Your task to perform on an android device: Open Reddit.com Image 0: 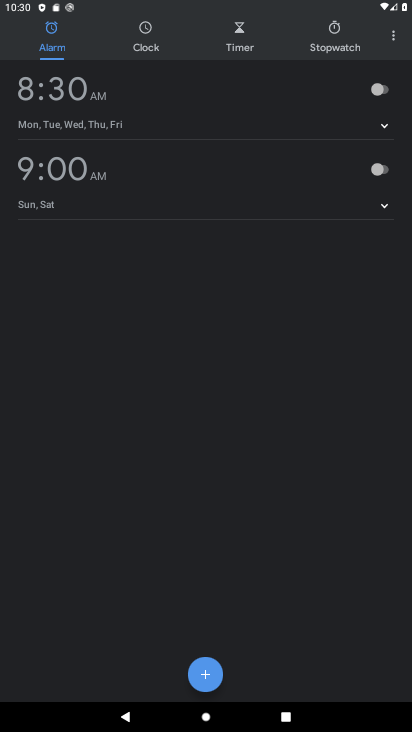
Step 0: press home button
Your task to perform on an android device: Open Reddit.com Image 1: 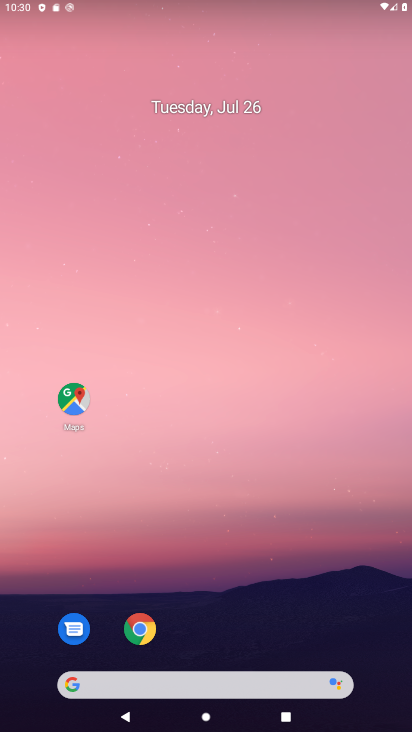
Step 1: drag from (365, 636) to (194, 36)
Your task to perform on an android device: Open Reddit.com Image 2: 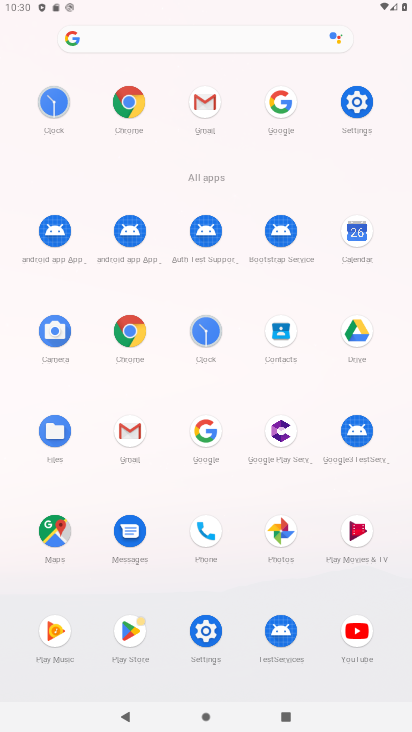
Step 2: click (197, 426)
Your task to perform on an android device: Open Reddit.com Image 3: 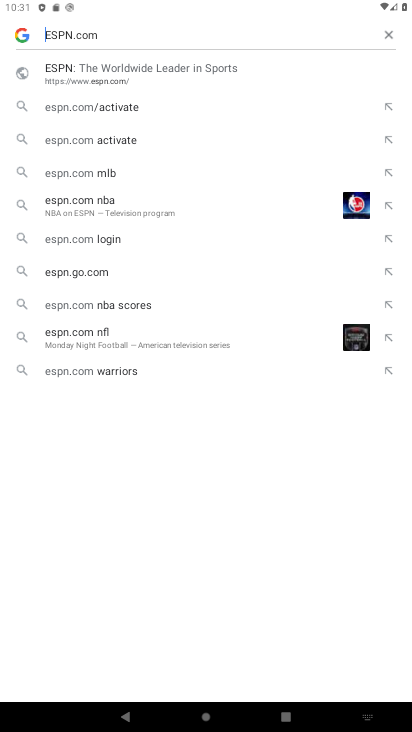
Step 3: click (384, 33)
Your task to perform on an android device: Open Reddit.com Image 4: 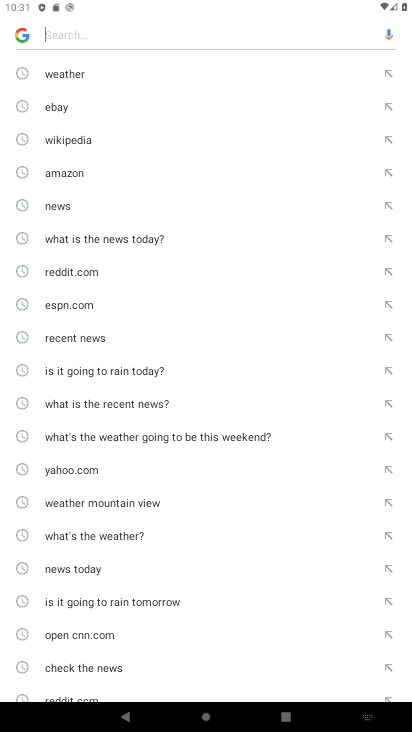
Step 4: type "Reddit.com"
Your task to perform on an android device: Open Reddit.com Image 5: 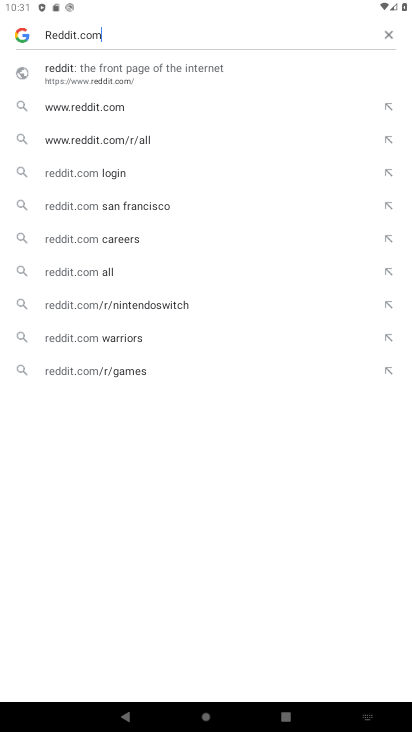
Step 5: click (126, 74)
Your task to perform on an android device: Open Reddit.com Image 6: 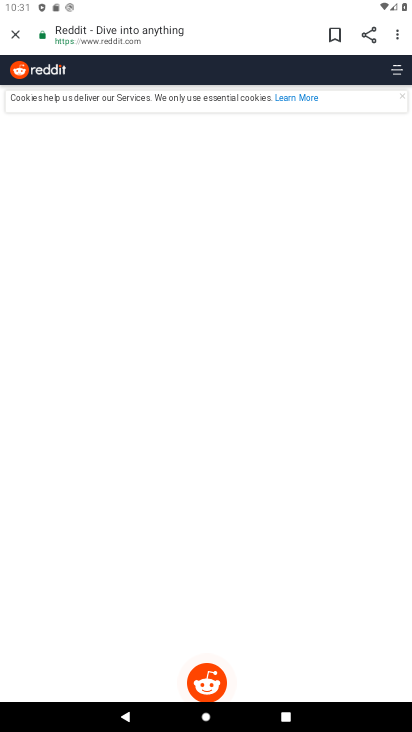
Step 6: task complete